Your task to perform on an android device: check data usage Image 0: 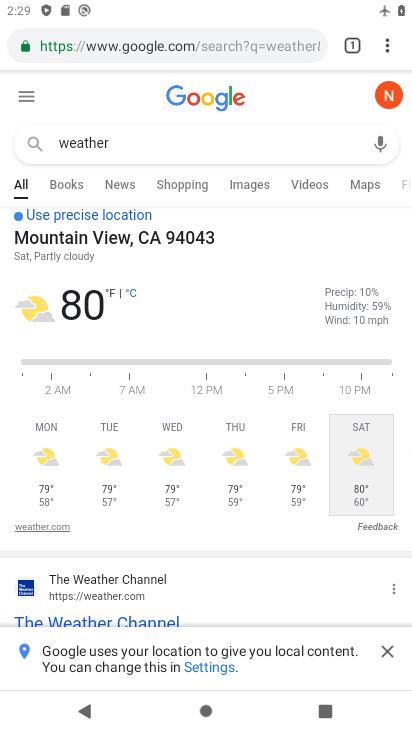
Step 0: press home button
Your task to perform on an android device: check data usage Image 1: 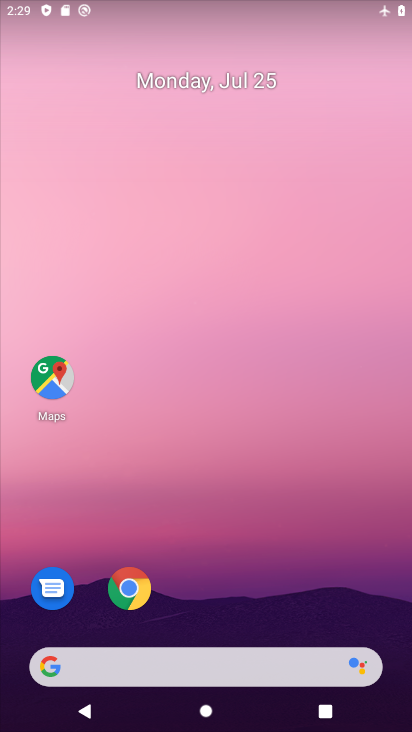
Step 1: drag from (266, 581) to (269, 78)
Your task to perform on an android device: check data usage Image 2: 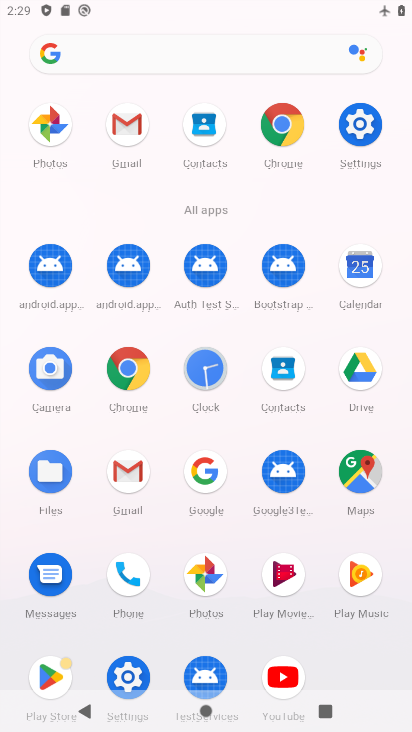
Step 2: click (365, 128)
Your task to perform on an android device: check data usage Image 3: 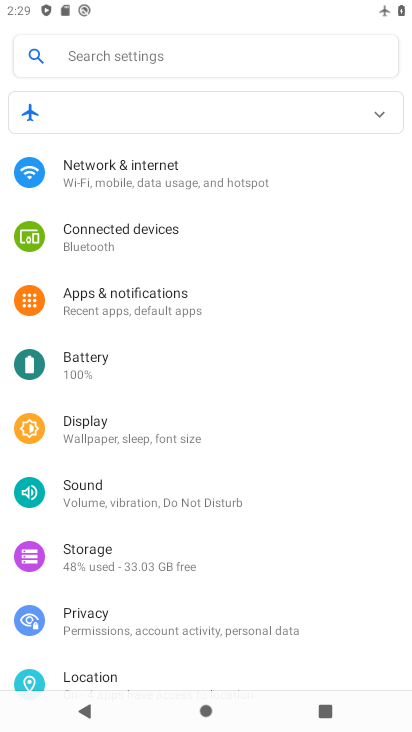
Step 3: click (143, 187)
Your task to perform on an android device: check data usage Image 4: 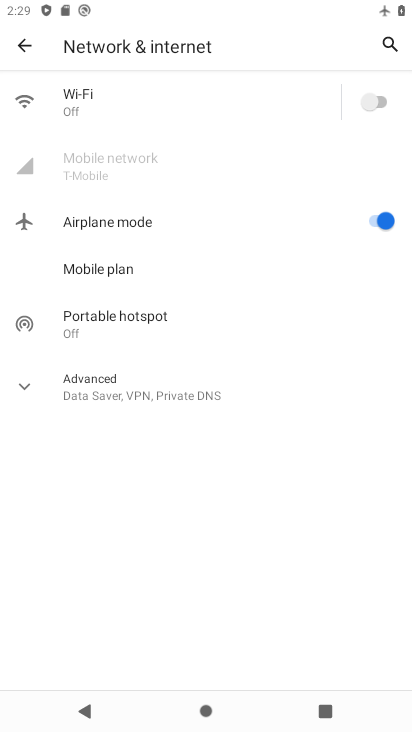
Step 4: click (164, 99)
Your task to perform on an android device: check data usage Image 5: 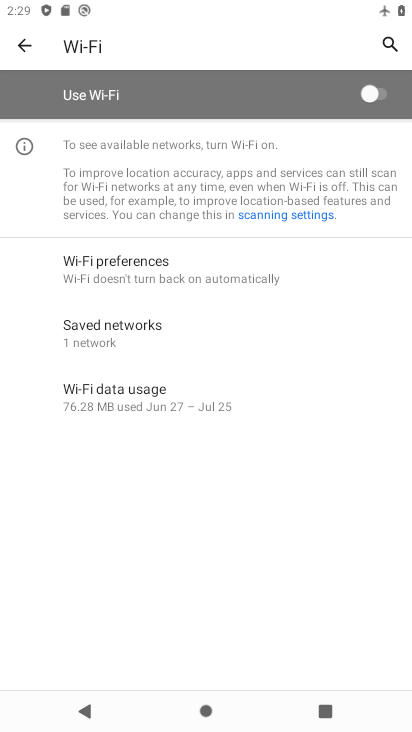
Step 5: click (169, 403)
Your task to perform on an android device: check data usage Image 6: 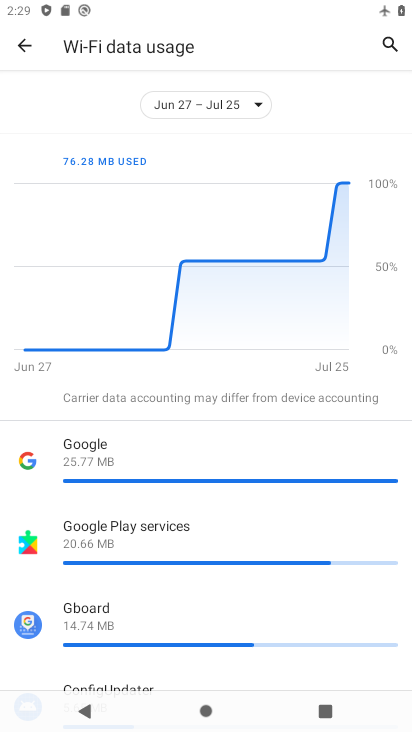
Step 6: task complete